Your task to perform on an android device: turn off javascript in the chrome app Image 0: 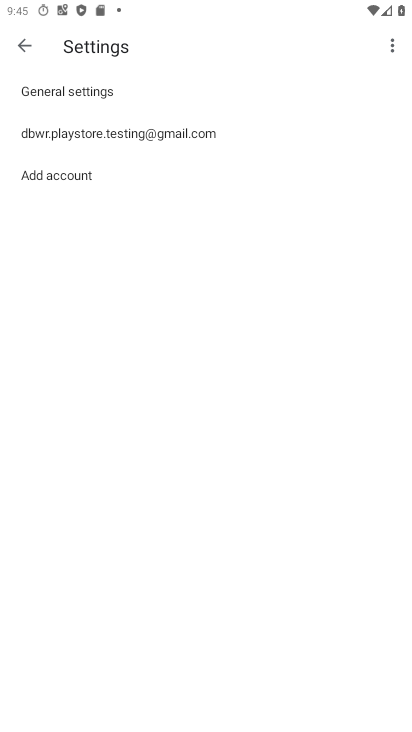
Step 0: press home button
Your task to perform on an android device: turn off javascript in the chrome app Image 1: 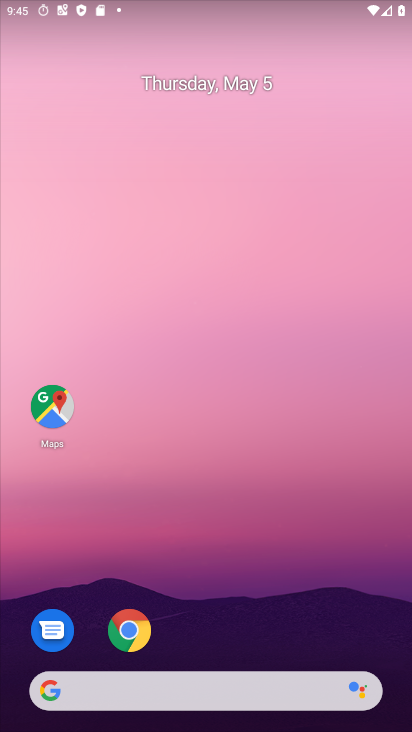
Step 1: click (121, 633)
Your task to perform on an android device: turn off javascript in the chrome app Image 2: 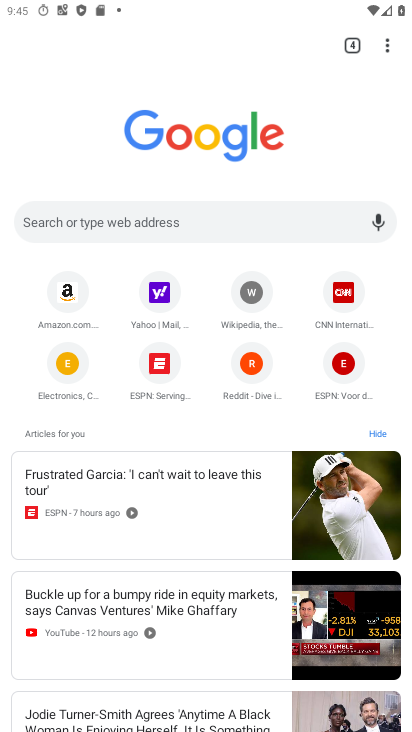
Step 2: drag from (387, 43) to (251, 391)
Your task to perform on an android device: turn off javascript in the chrome app Image 3: 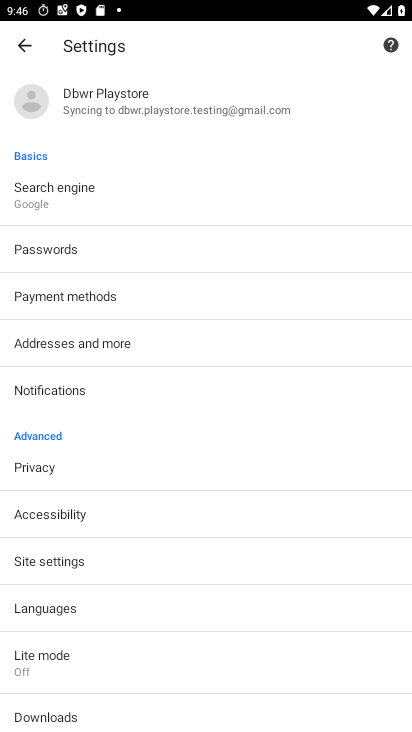
Step 3: click (47, 557)
Your task to perform on an android device: turn off javascript in the chrome app Image 4: 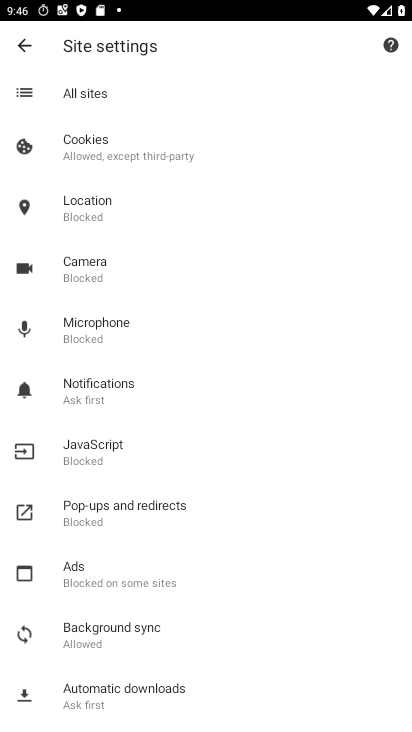
Step 4: click (75, 454)
Your task to perform on an android device: turn off javascript in the chrome app Image 5: 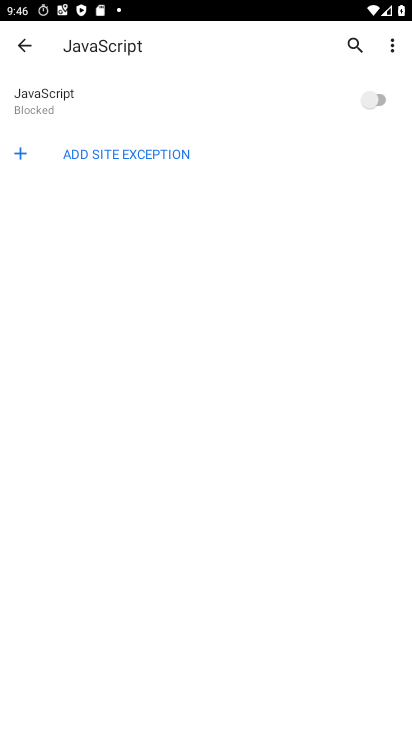
Step 5: task complete